Your task to perform on an android device: check storage Image 0: 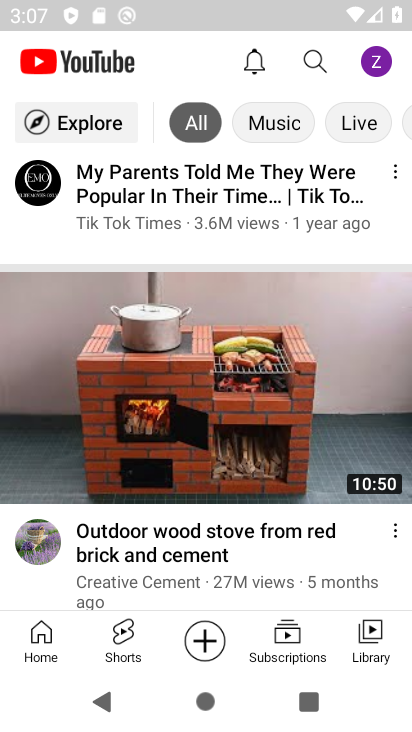
Step 0: press home button
Your task to perform on an android device: check storage Image 1: 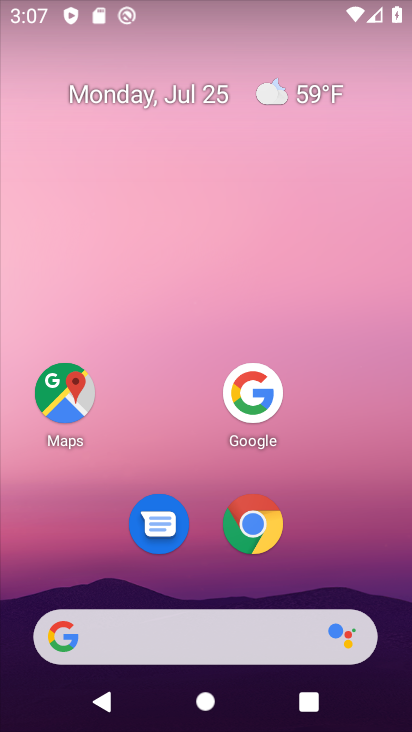
Step 1: drag from (216, 621) to (287, 99)
Your task to perform on an android device: check storage Image 2: 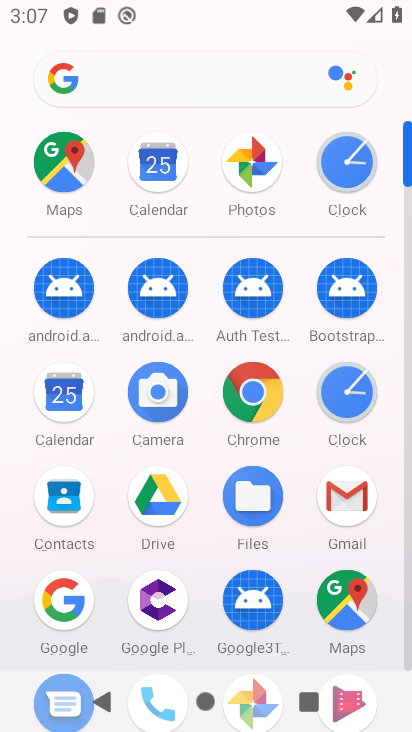
Step 2: drag from (225, 528) to (339, 81)
Your task to perform on an android device: check storage Image 3: 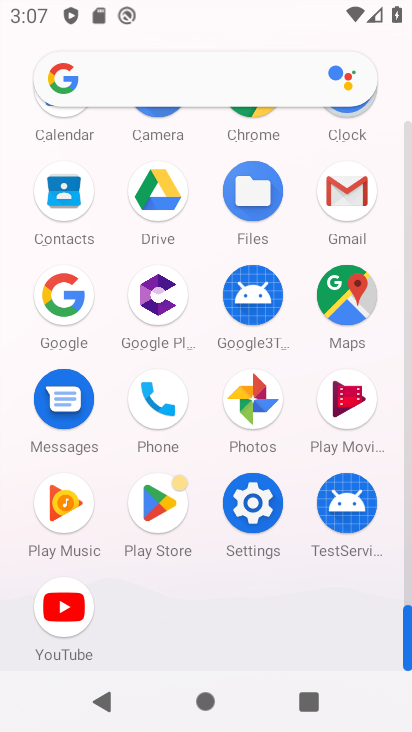
Step 3: click (248, 503)
Your task to perform on an android device: check storage Image 4: 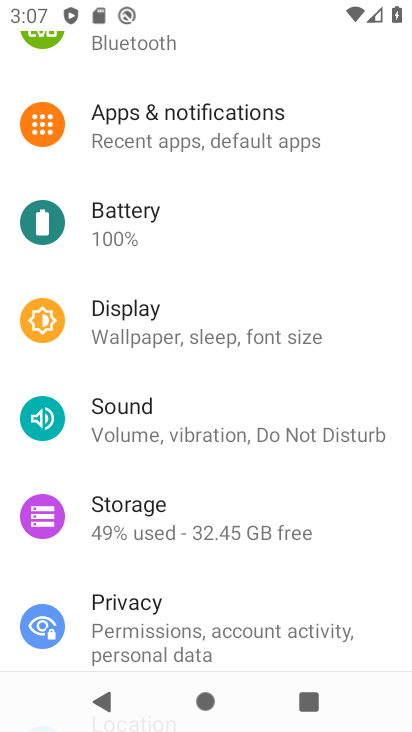
Step 4: click (152, 519)
Your task to perform on an android device: check storage Image 5: 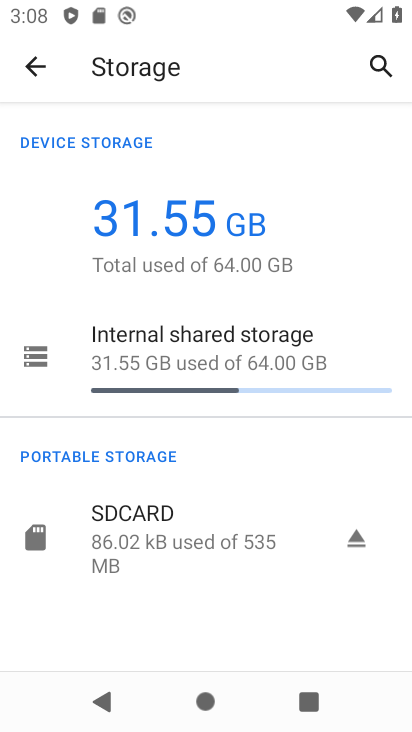
Step 5: task complete